Your task to perform on an android device: open a bookmark in the chrome app Image 0: 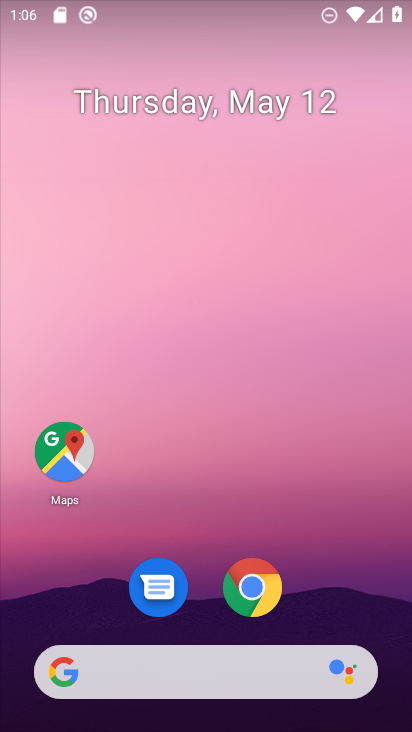
Step 0: click (252, 586)
Your task to perform on an android device: open a bookmark in the chrome app Image 1: 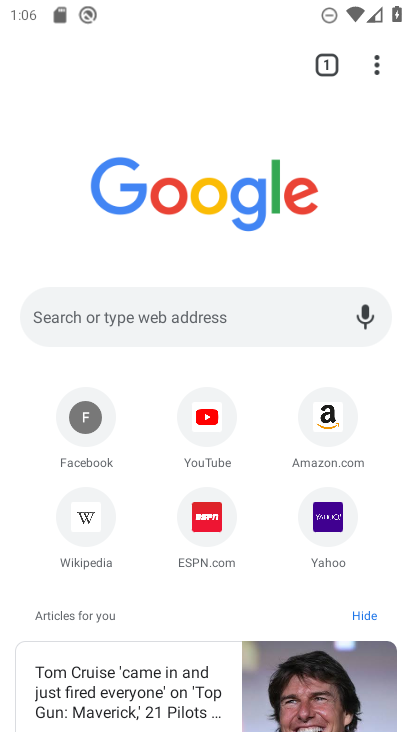
Step 1: click (378, 66)
Your task to perform on an android device: open a bookmark in the chrome app Image 2: 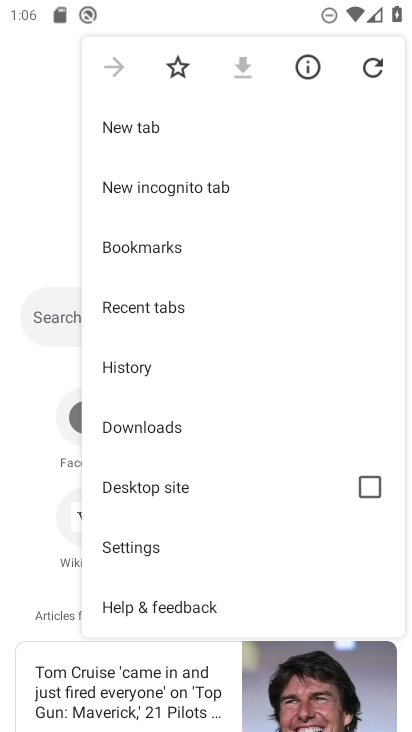
Step 2: click (156, 251)
Your task to perform on an android device: open a bookmark in the chrome app Image 3: 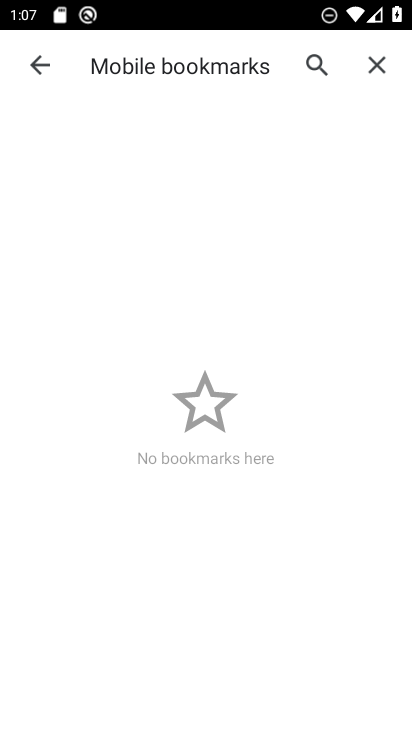
Step 3: task complete